Your task to perform on an android device: Open Reddit.com Image 0: 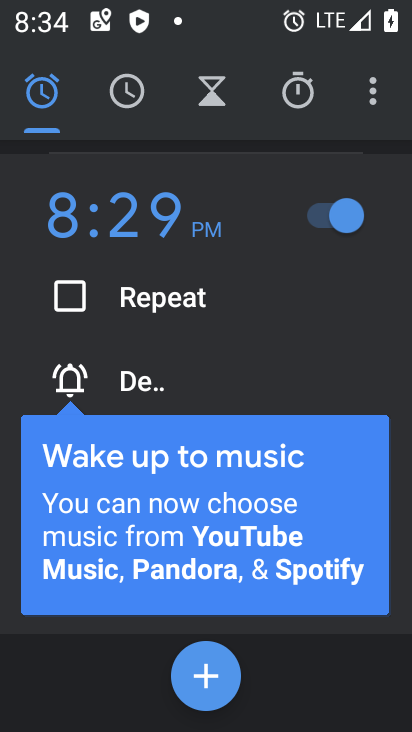
Step 0: press home button
Your task to perform on an android device: Open Reddit.com Image 1: 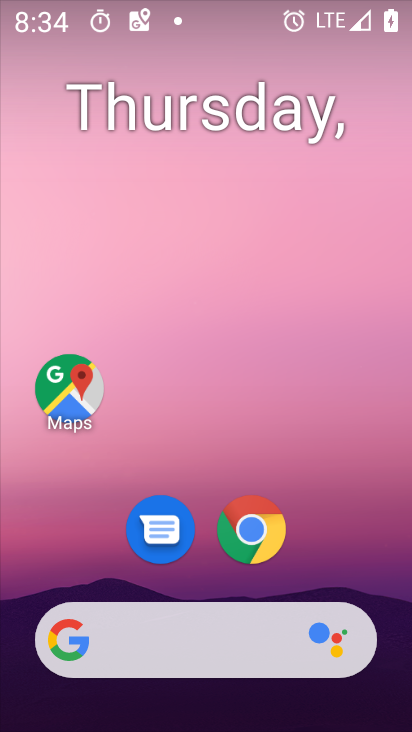
Step 1: drag from (365, 567) to (374, 177)
Your task to perform on an android device: Open Reddit.com Image 2: 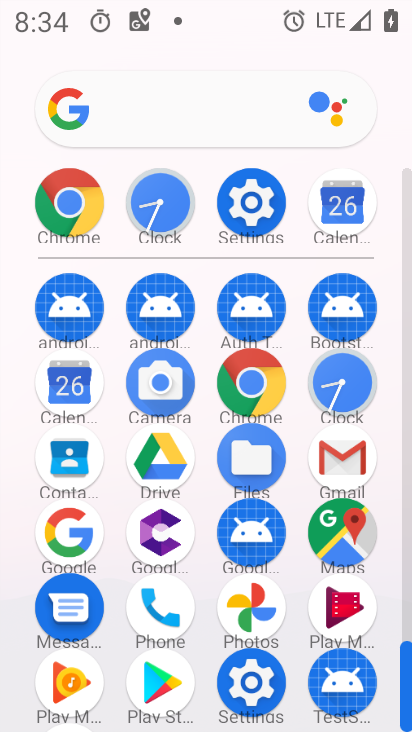
Step 2: click (262, 394)
Your task to perform on an android device: Open Reddit.com Image 3: 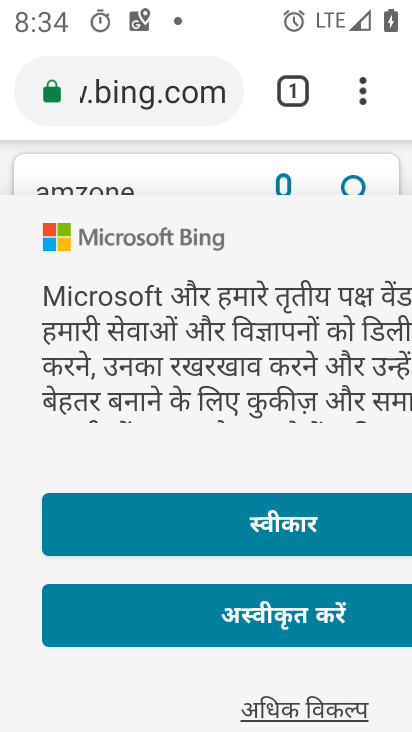
Step 3: click (201, 108)
Your task to perform on an android device: Open Reddit.com Image 4: 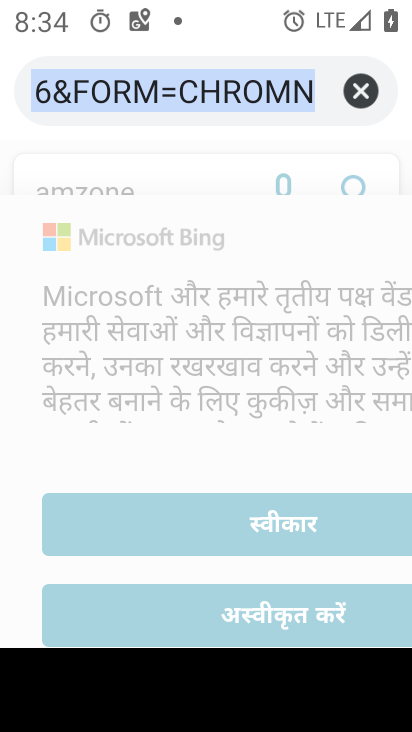
Step 4: click (358, 92)
Your task to perform on an android device: Open Reddit.com Image 5: 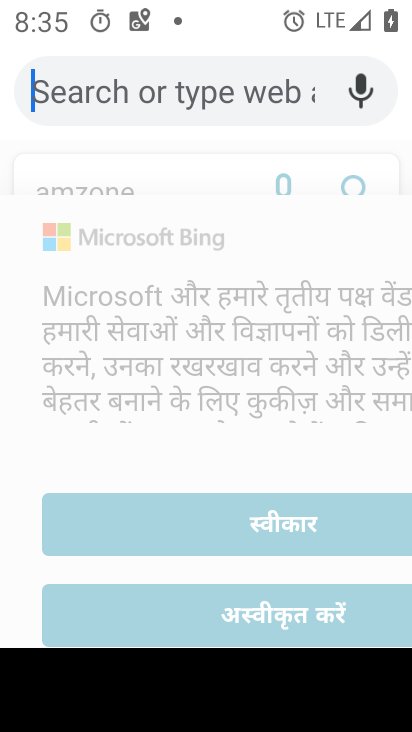
Step 5: type "reddit.com"
Your task to perform on an android device: Open Reddit.com Image 6: 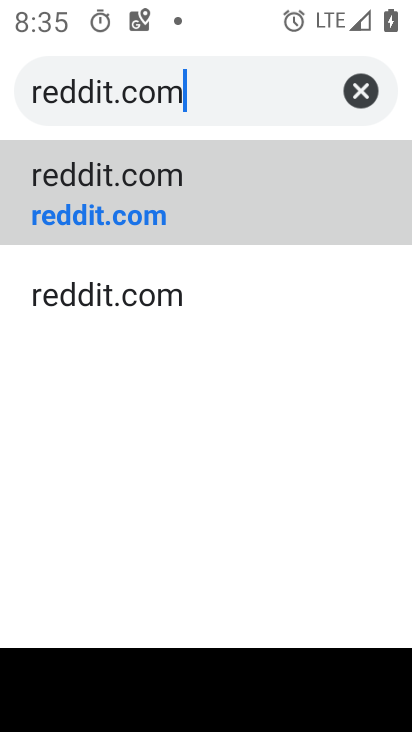
Step 6: click (204, 197)
Your task to perform on an android device: Open Reddit.com Image 7: 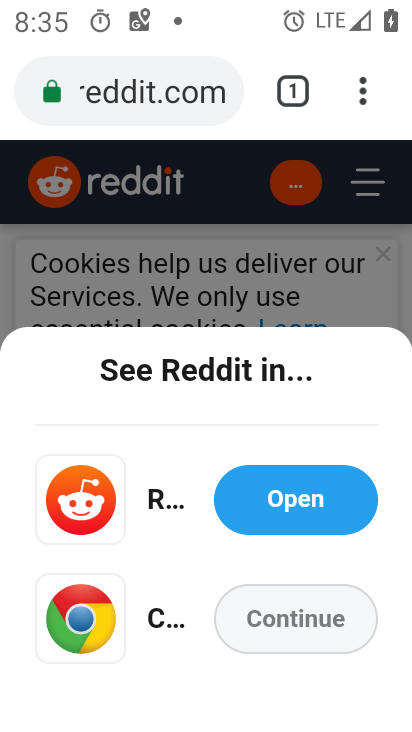
Step 7: task complete